Your task to perform on an android device: uninstall "ColorNote Notepad Notes" Image 0: 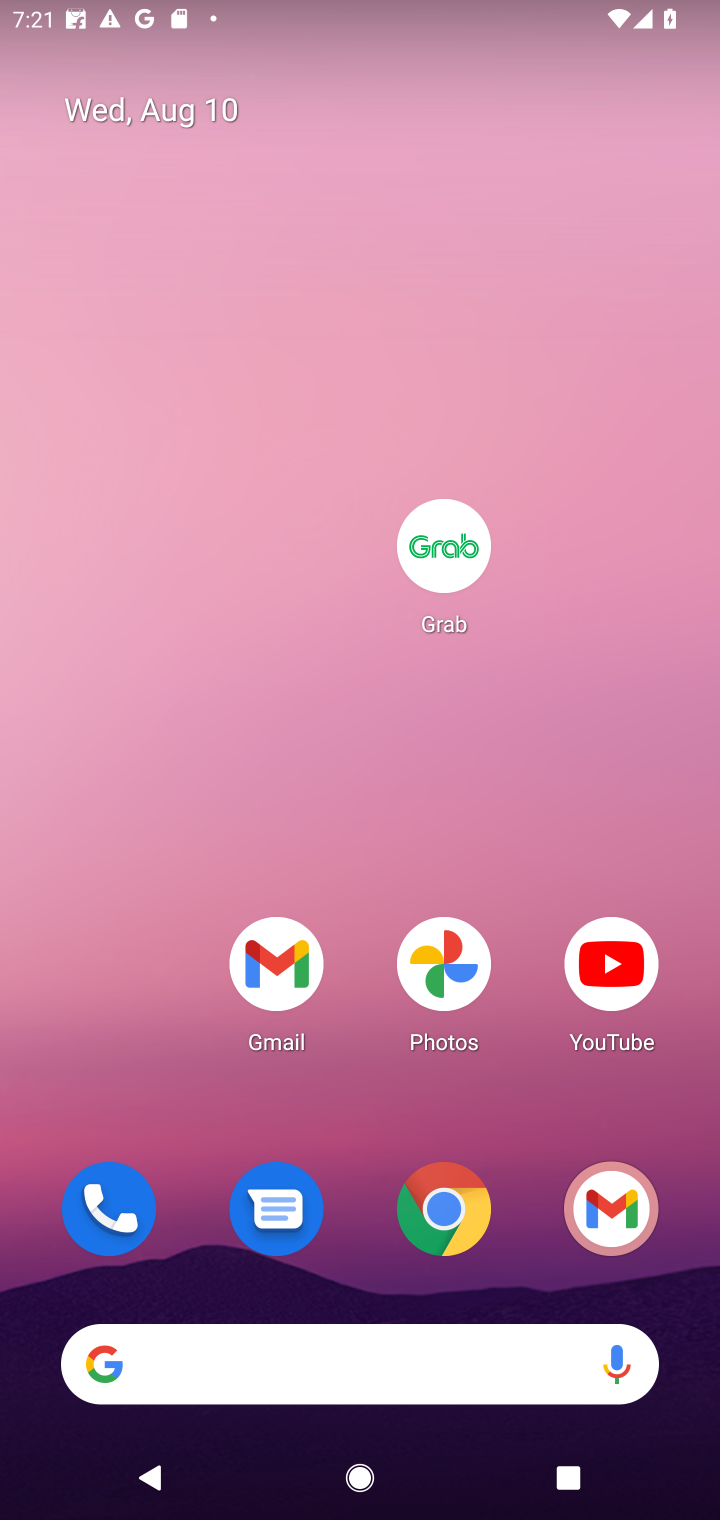
Step 0: drag from (359, 1310) to (470, 0)
Your task to perform on an android device: uninstall "ColorNote Notepad Notes" Image 1: 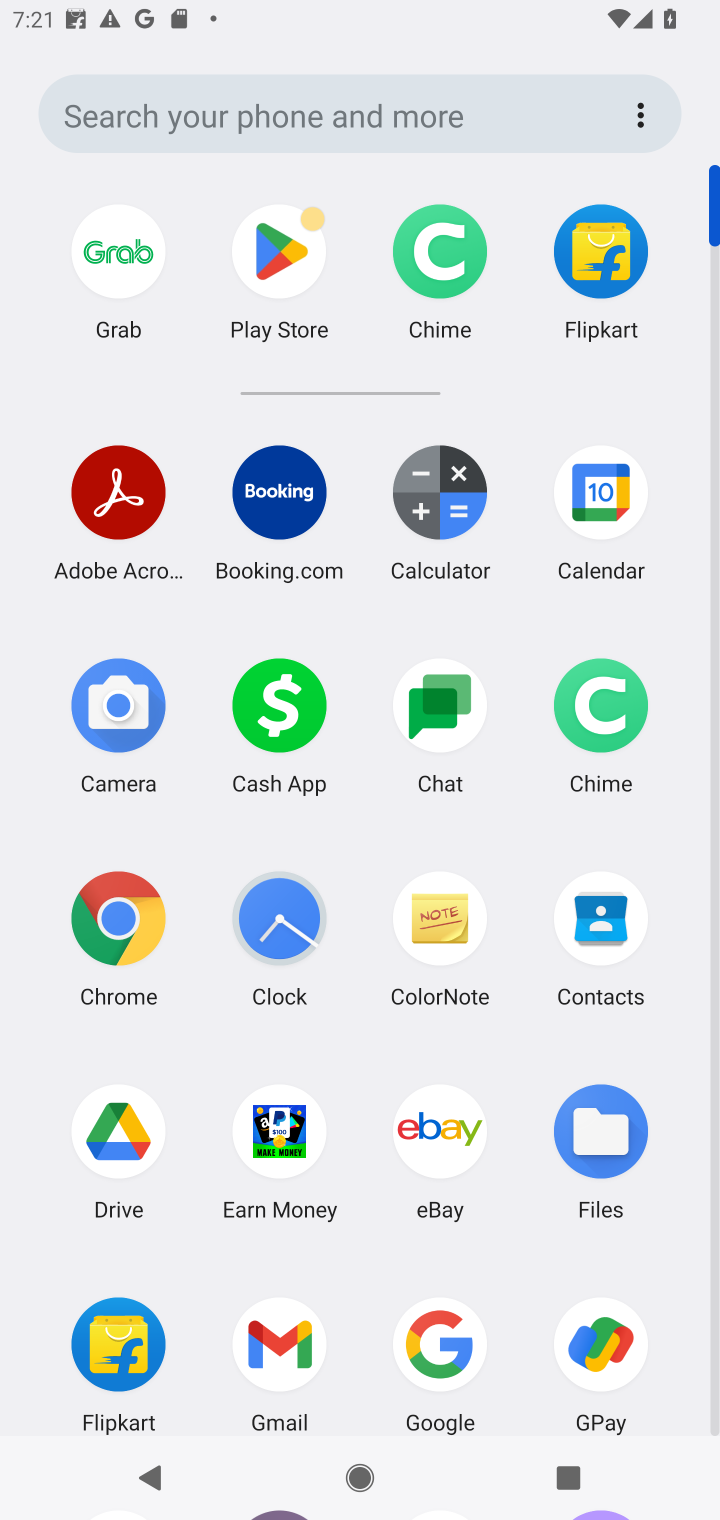
Step 1: click (456, 958)
Your task to perform on an android device: uninstall "ColorNote Notepad Notes" Image 2: 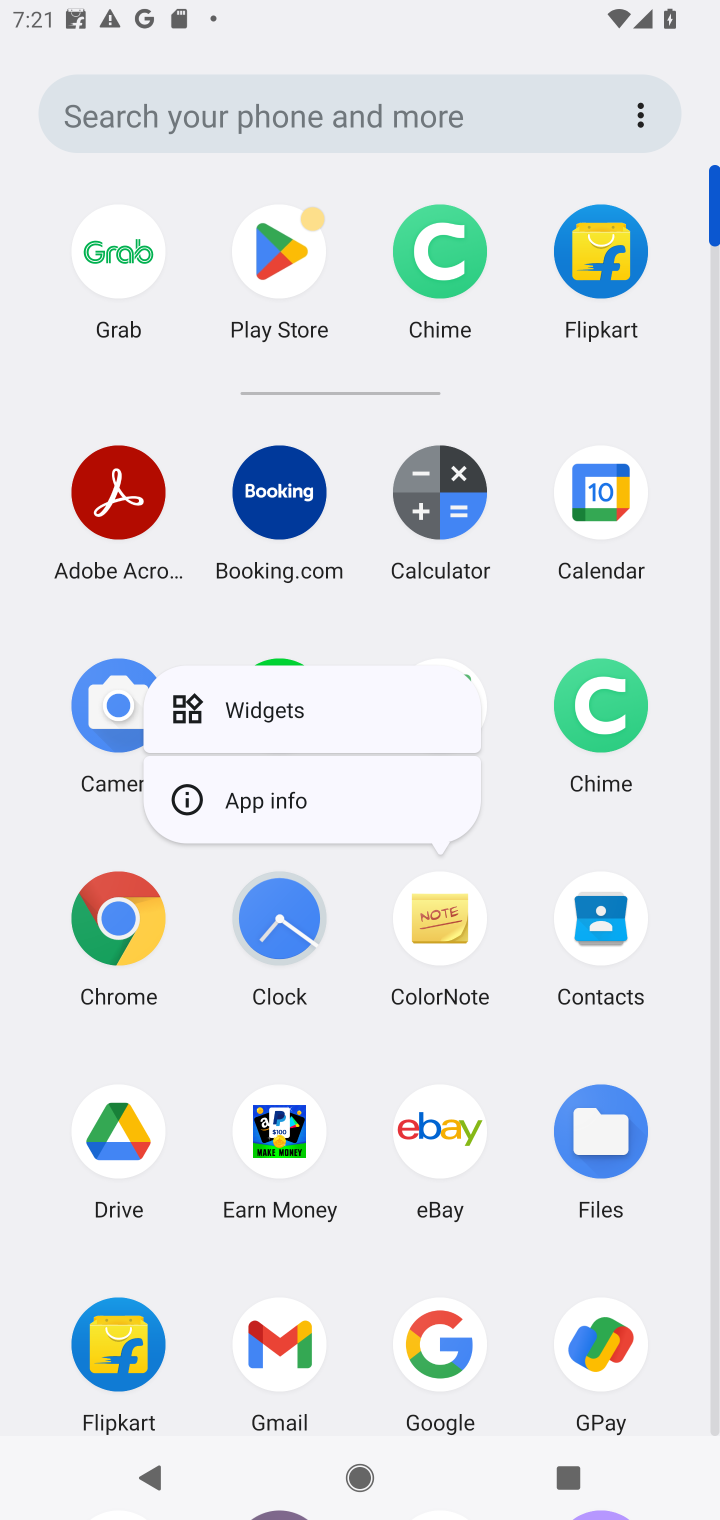
Step 2: click (357, 787)
Your task to perform on an android device: uninstall "ColorNote Notepad Notes" Image 3: 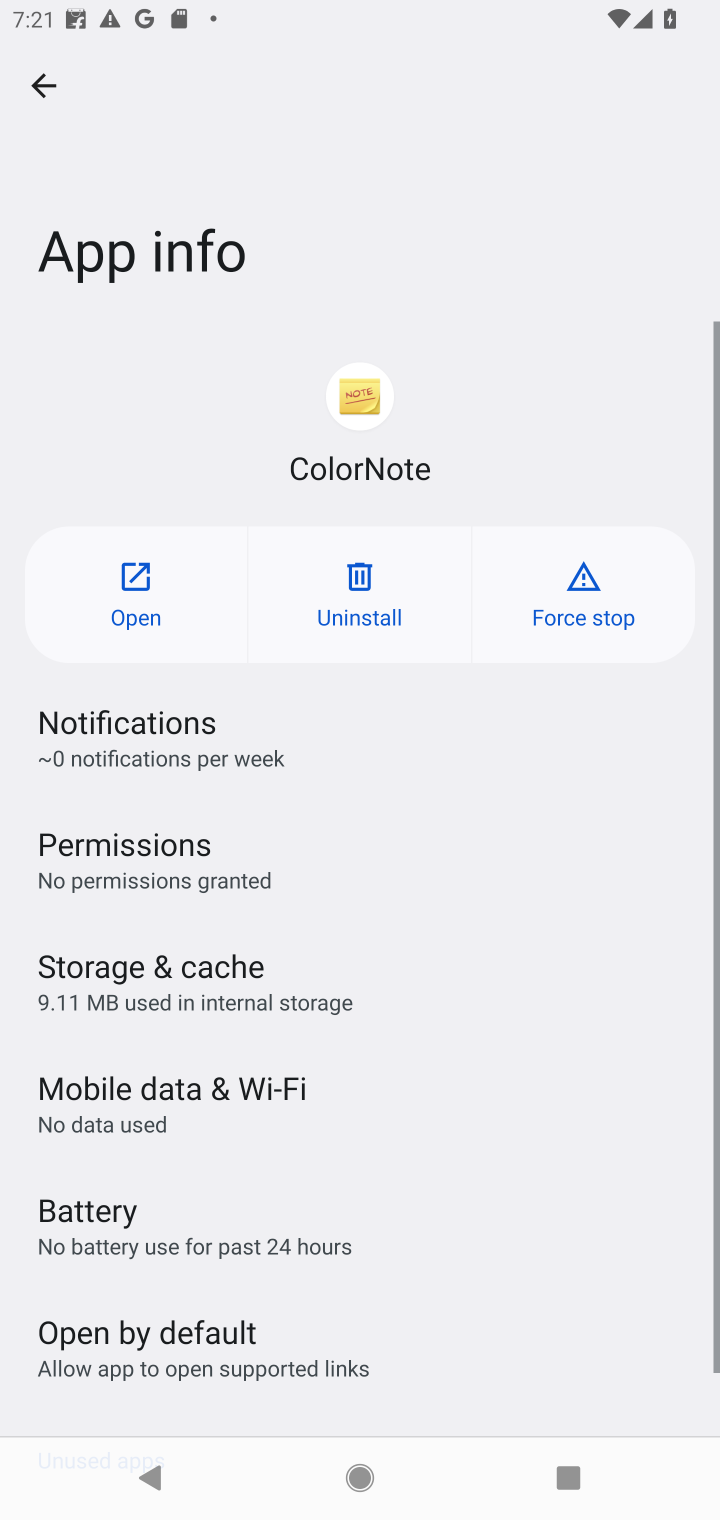
Step 3: click (396, 610)
Your task to perform on an android device: uninstall "ColorNote Notepad Notes" Image 4: 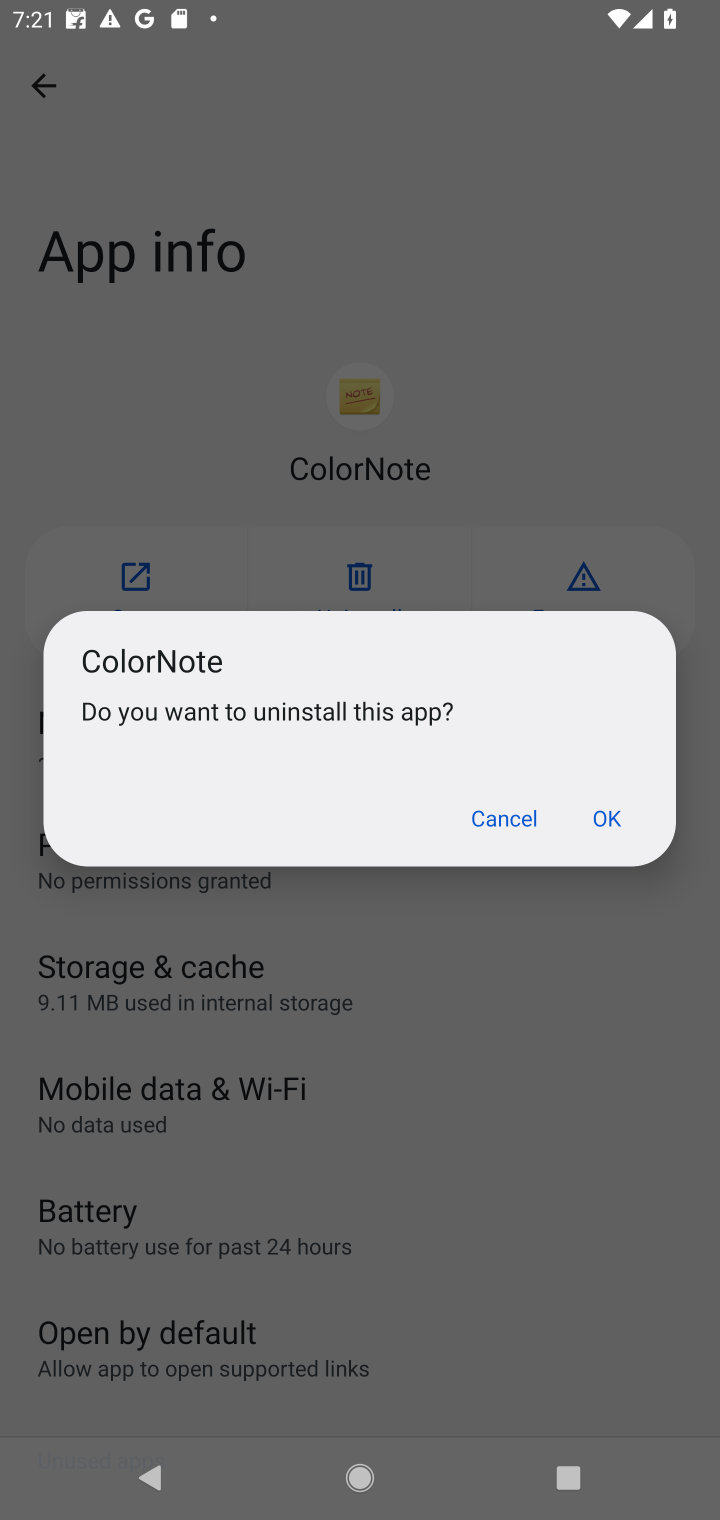
Step 4: click (622, 837)
Your task to perform on an android device: uninstall "ColorNote Notepad Notes" Image 5: 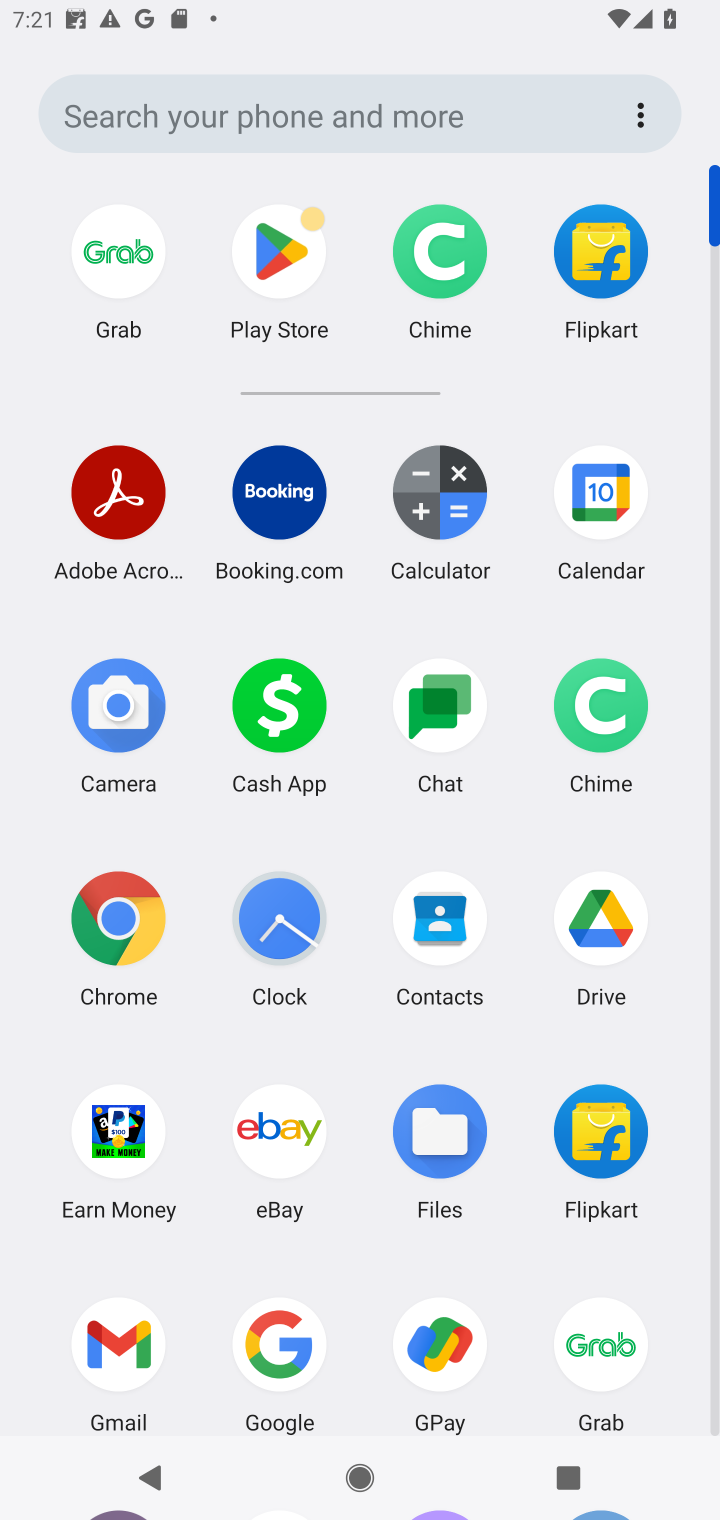
Step 5: task complete